Your task to perform on an android device: turn off priority inbox in the gmail app Image 0: 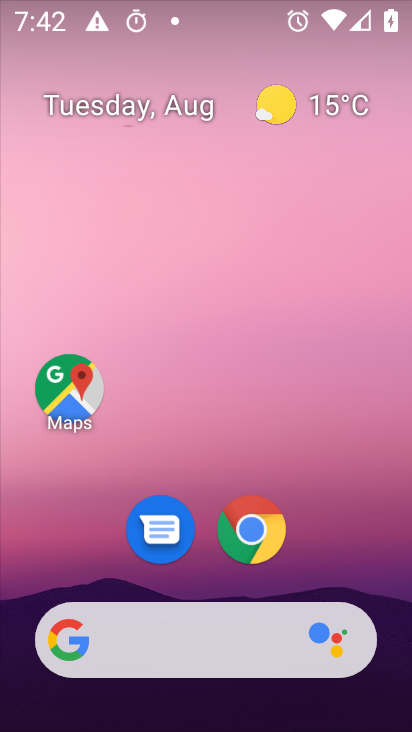
Step 0: press home button
Your task to perform on an android device: turn off priority inbox in the gmail app Image 1: 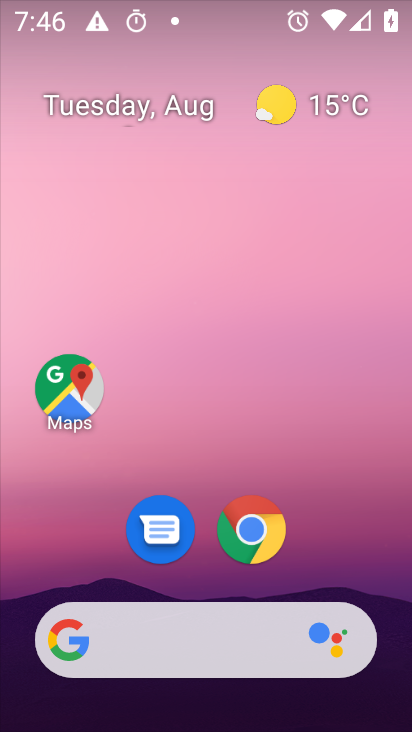
Step 1: drag from (219, 572) to (165, 4)
Your task to perform on an android device: turn off priority inbox in the gmail app Image 2: 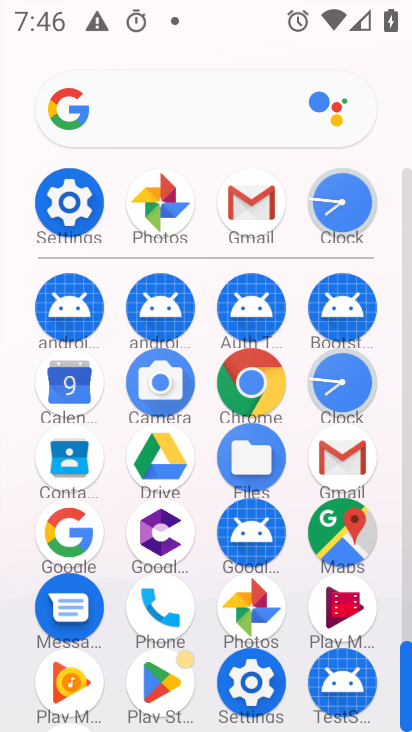
Step 2: click (242, 198)
Your task to perform on an android device: turn off priority inbox in the gmail app Image 3: 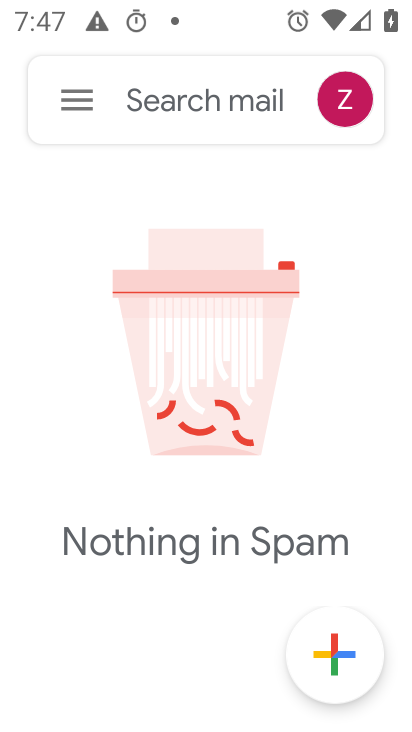
Step 3: click (74, 107)
Your task to perform on an android device: turn off priority inbox in the gmail app Image 4: 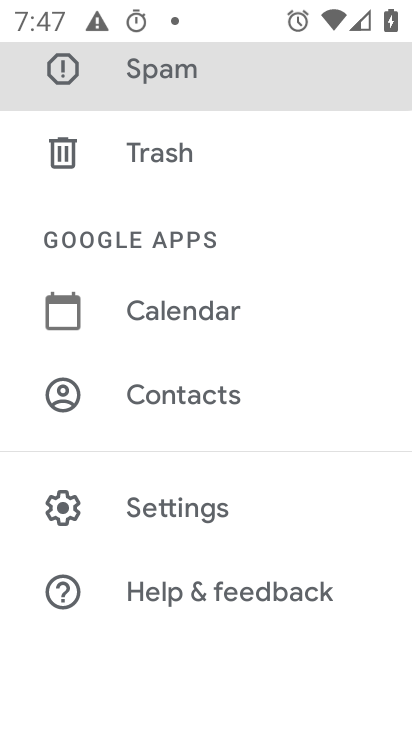
Step 4: click (160, 509)
Your task to perform on an android device: turn off priority inbox in the gmail app Image 5: 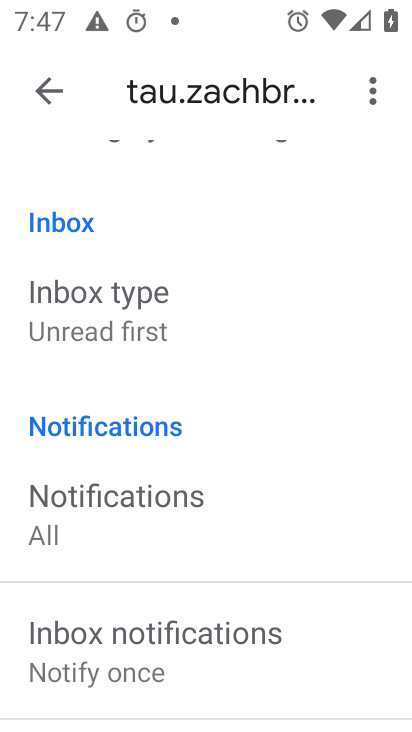
Step 5: drag from (358, 637) to (284, 686)
Your task to perform on an android device: turn off priority inbox in the gmail app Image 6: 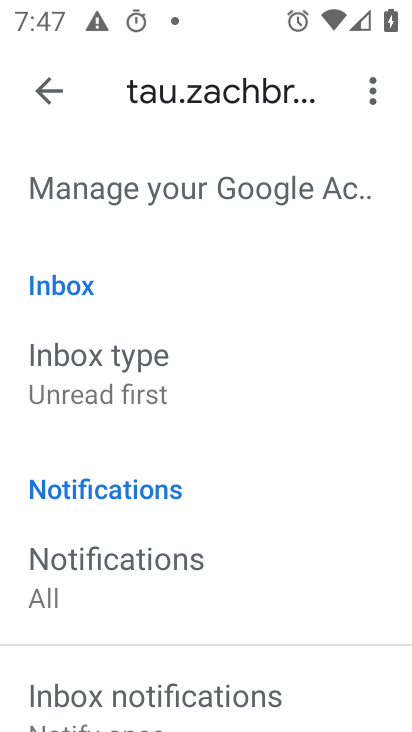
Step 6: click (82, 388)
Your task to perform on an android device: turn off priority inbox in the gmail app Image 7: 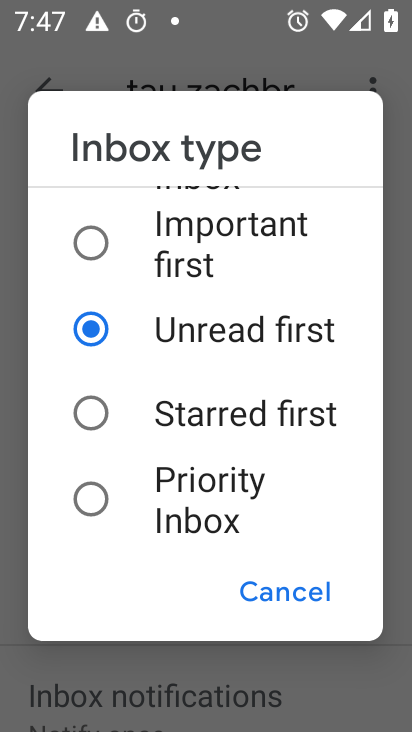
Step 7: task complete